Your task to perform on an android device: toggle wifi Image 0: 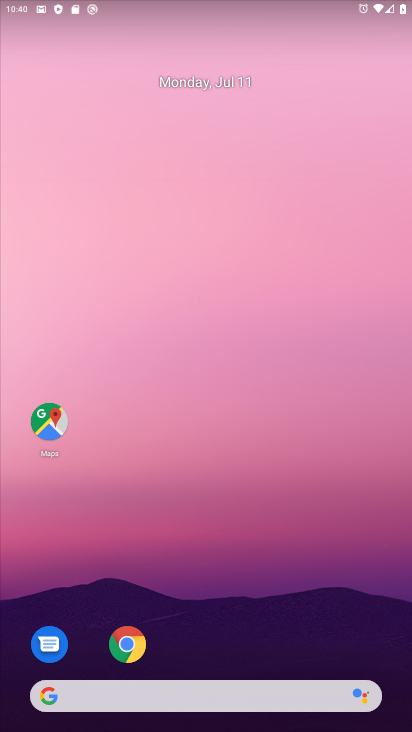
Step 0: drag from (222, 606) to (194, 130)
Your task to perform on an android device: toggle wifi Image 1: 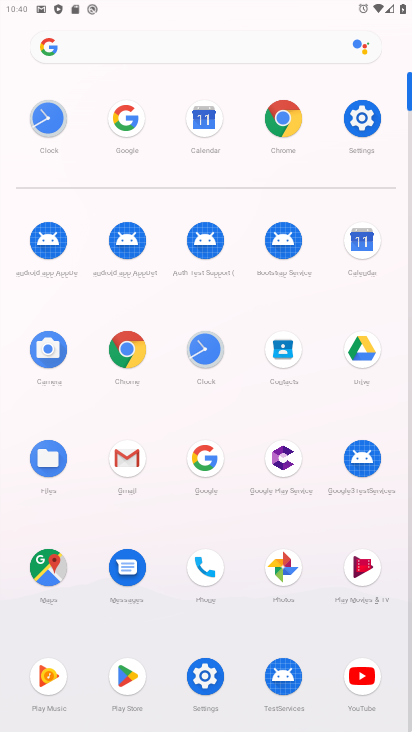
Step 1: click (349, 111)
Your task to perform on an android device: toggle wifi Image 2: 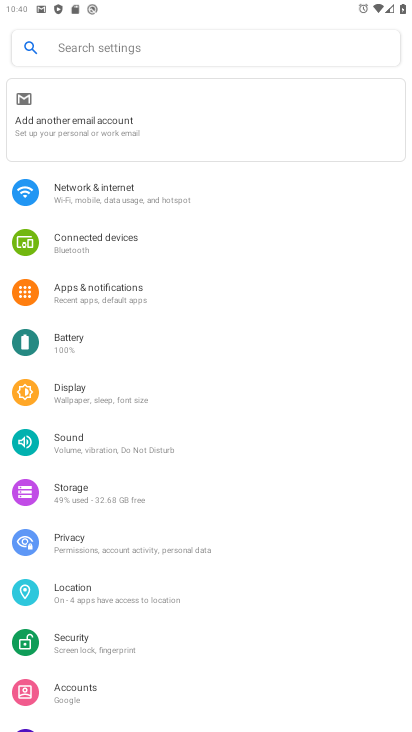
Step 2: click (110, 195)
Your task to perform on an android device: toggle wifi Image 3: 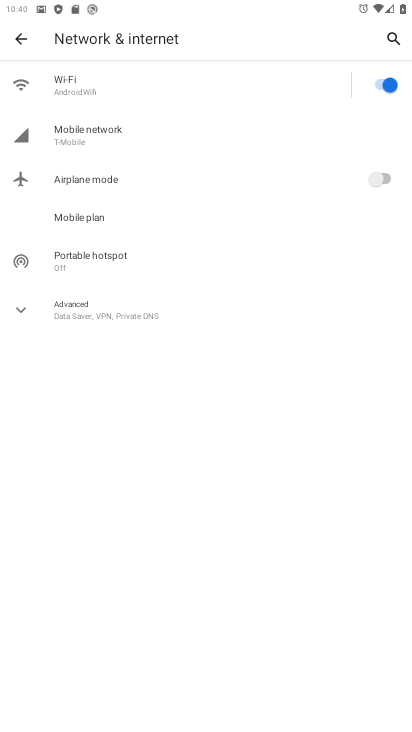
Step 3: click (382, 80)
Your task to perform on an android device: toggle wifi Image 4: 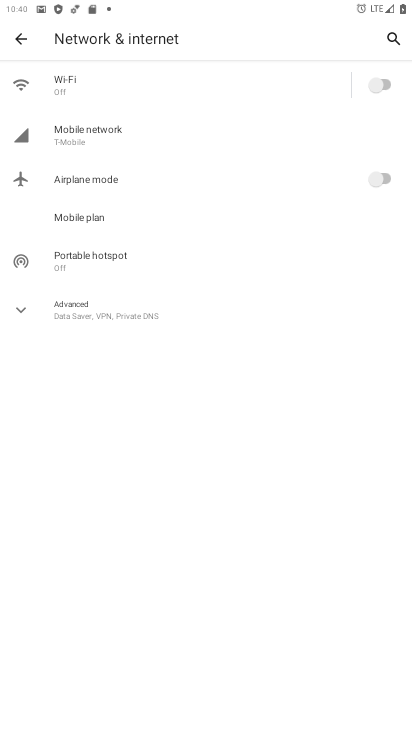
Step 4: task complete